Your task to perform on an android device: toggle improve location accuracy Image 0: 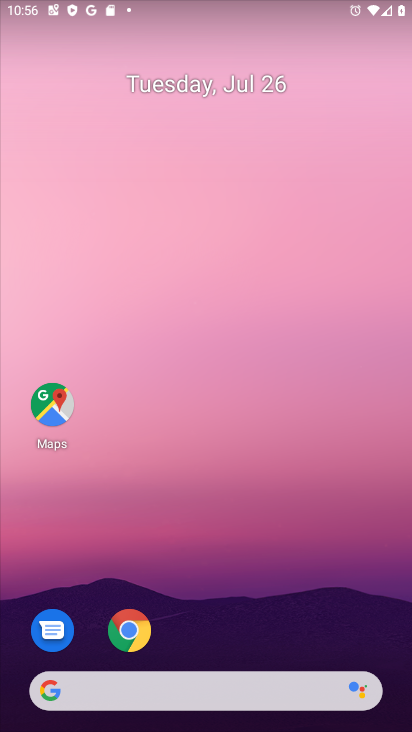
Step 0: drag from (148, 493) to (156, 43)
Your task to perform on an android device: toggle improve location accuracy Image 1: 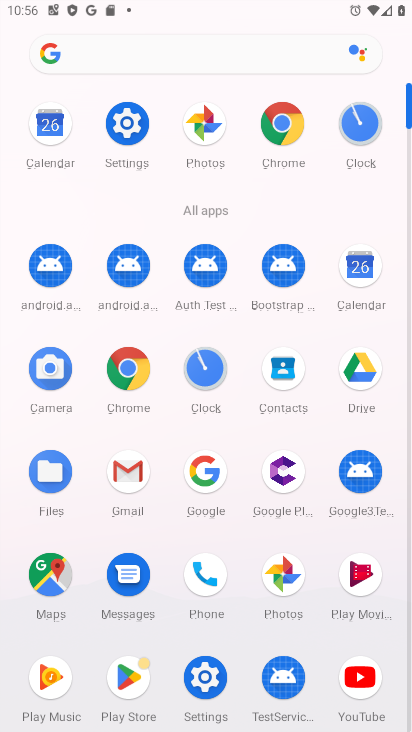
Step 1: click (125, 133)
Your task to perform on an android device: toggle improve location accuracy Image 2: 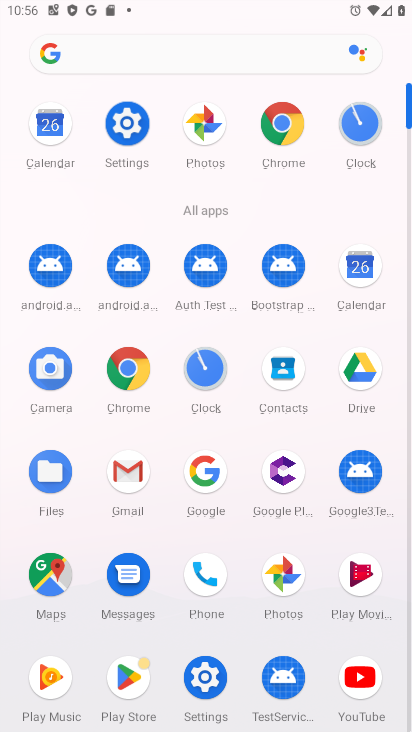
Step 2: click (125, 133)
Your task to perform on an android device: toggle improve location accuracy Image 3: 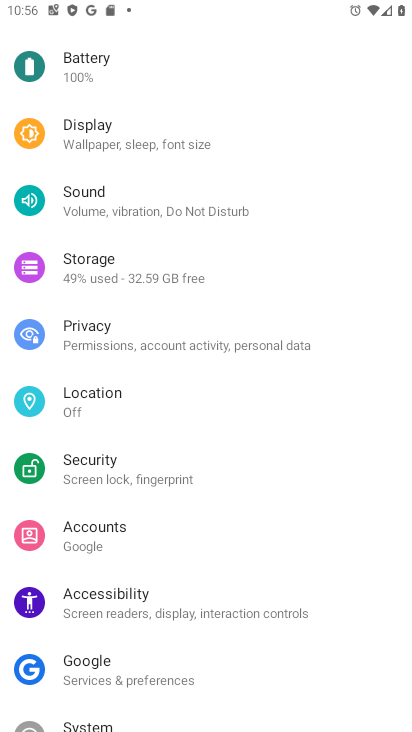
Step 3: click (159, 403)
Your task to perform on an android device: toggle improve location accuracy Image 4: 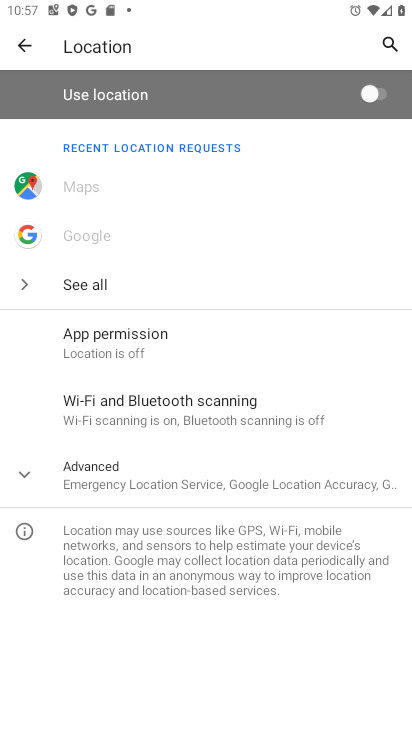
Step 4: click (240, 496)
Your task to perform on an android device: toggle improve location accuracy Image 5: 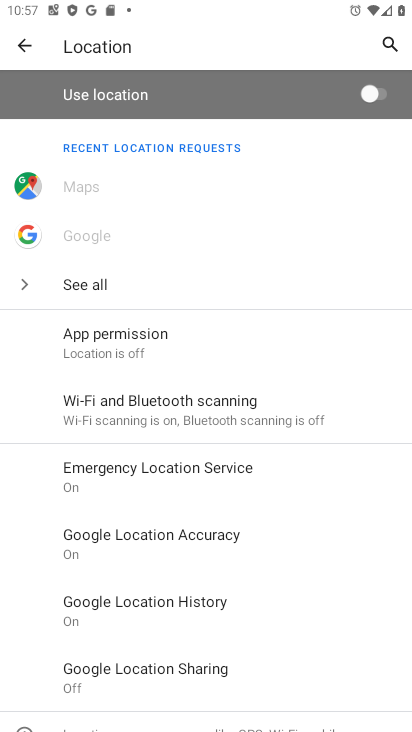
Step 5: click (232, 526)
Your task to perform on an android device: toggle improve location accuracy Image 6: 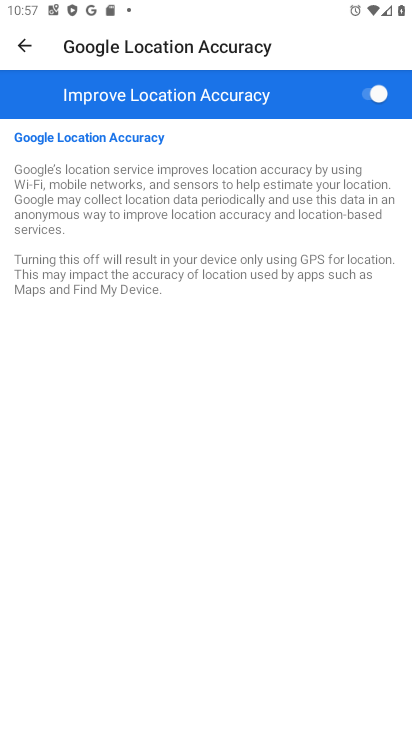
Step 6: click (384, 86)
Your task to perform on an android device: toggle improve location accuracy Image 7: 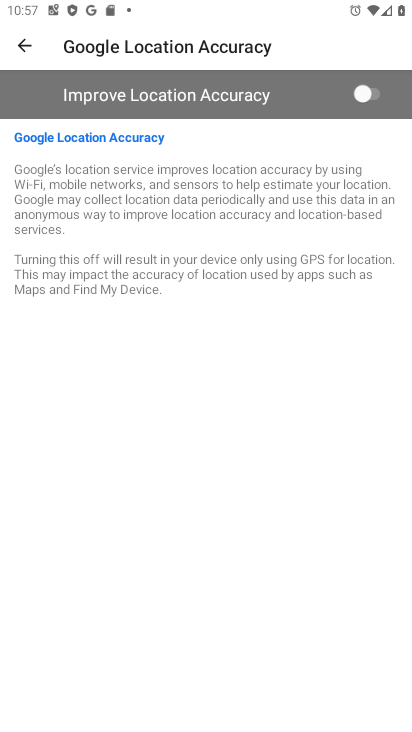
Step 7: task complete